Your task to perform on an android device: Open Amazon Image 0: 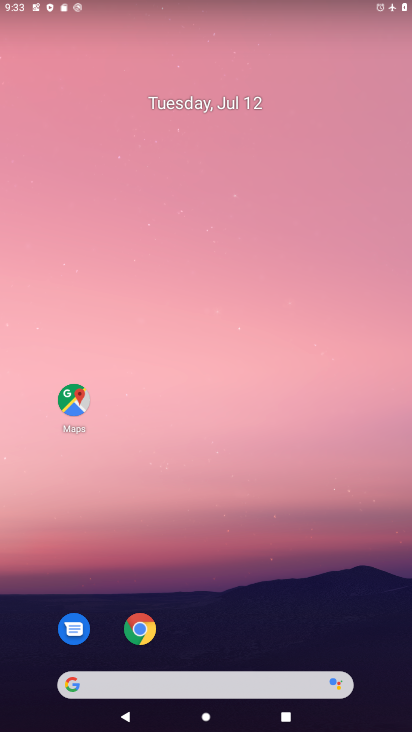
Step 0: drag from (247, 605) to (248, 229)
Your task to perform on an android device: Open Amazon Image 1: 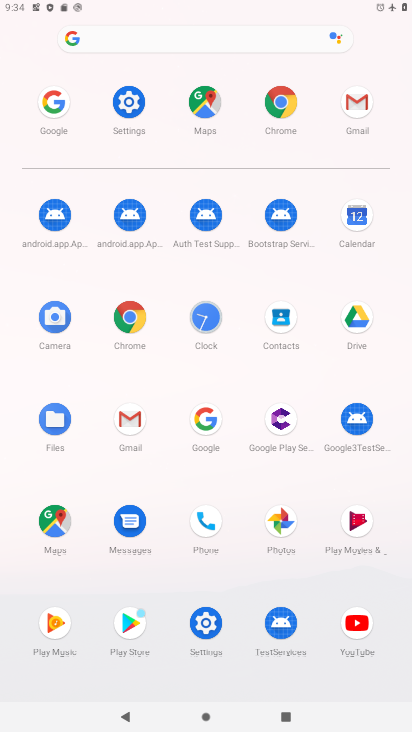
Step 1: click (279, 102)
Your task to perform on an android device: Open Amazon Image 2: 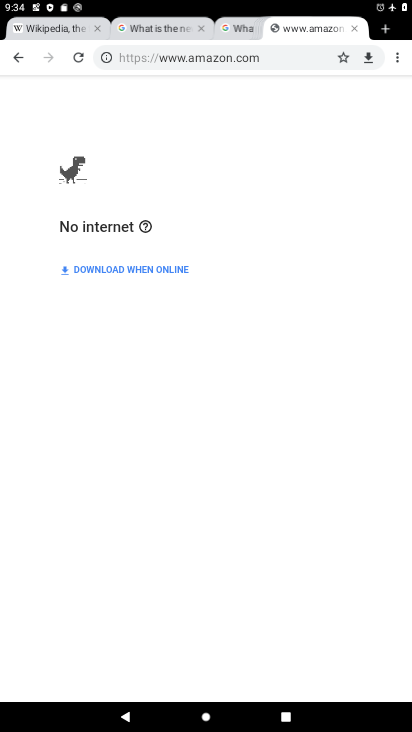
Step 2: click (397, 60)
Your task to perform on an android device: Open Amazon Image 3: 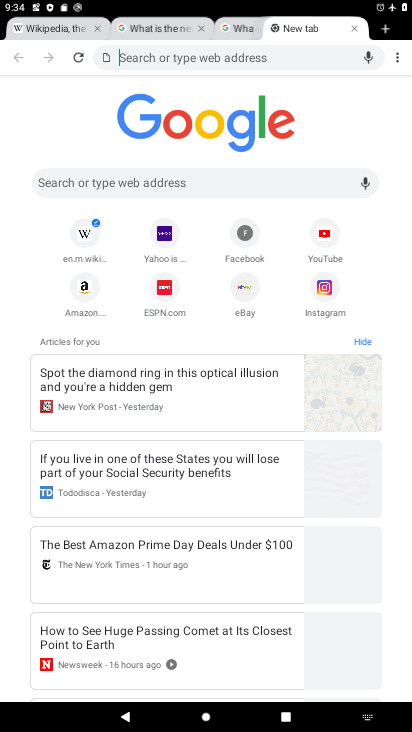
Step 3: click (410, 57)
Your task to perform on an android device: Open Amazon Image 4: 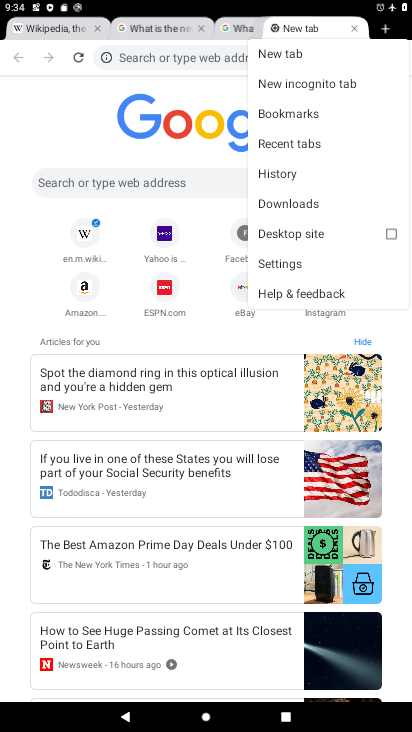
Step 4: click (85, 276)
Your task to perform on an android device: Open Amazon Image 5: 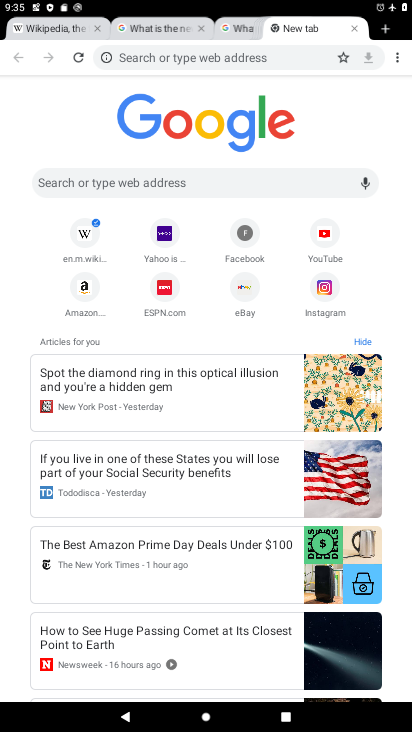
Step 5: click (86, 286)
Your task to perform on an android device: Open Amazon Image 6: 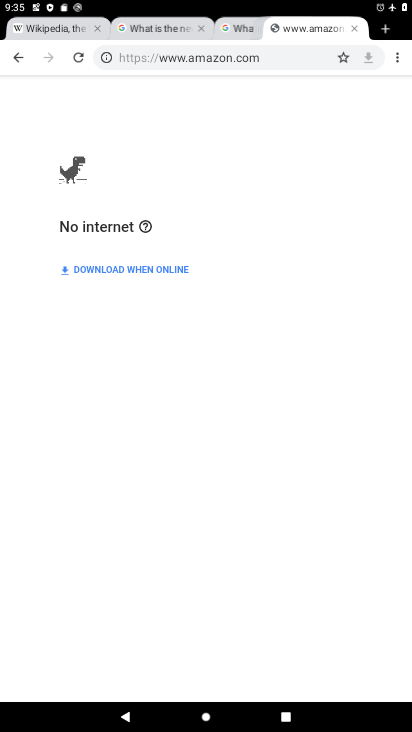
Step 6: task complete